Your task to perform on an android device: Go to CNN.com Image 0: 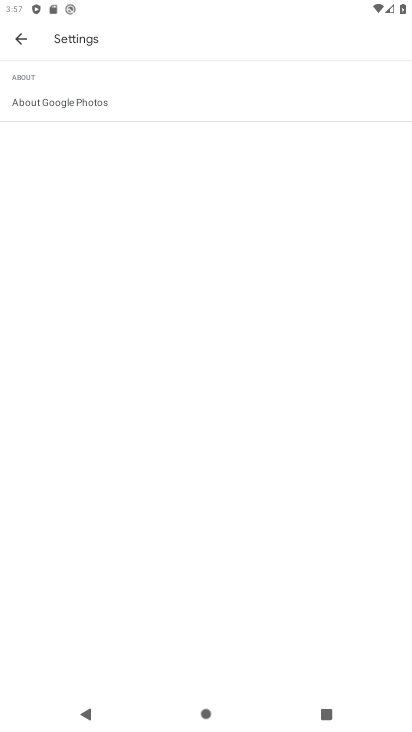
Step 0: press home button
Your task to perform on an android device: Go to CNN.com Image 1: 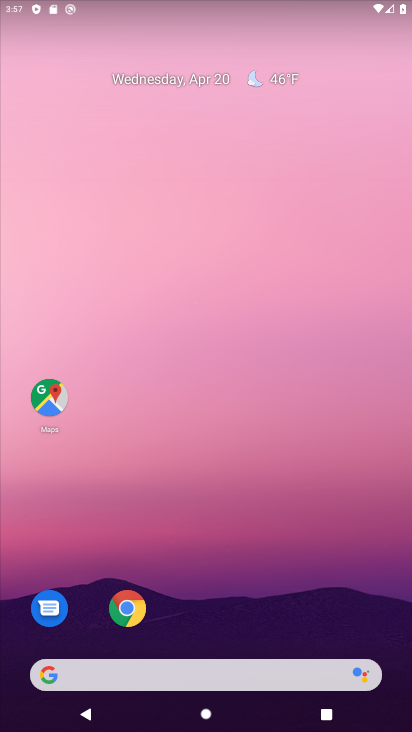
Step 1: click (129, 602)
Your task to perform on an android device: Go to CNN.com Image 2: 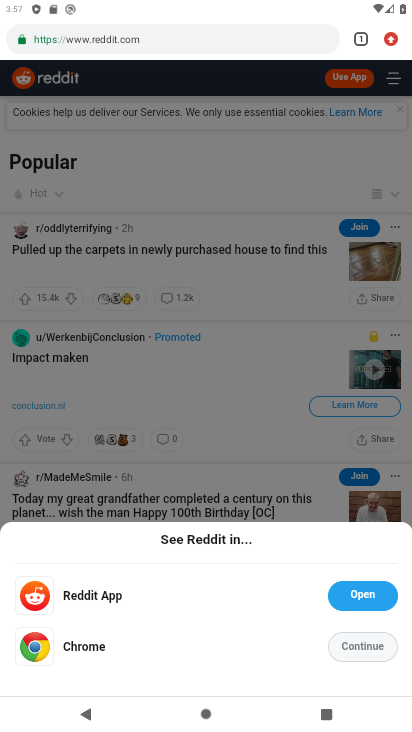
Step 2: click (361, 33)
Your task to perform on an android device: Go to CNN.com Image 3: 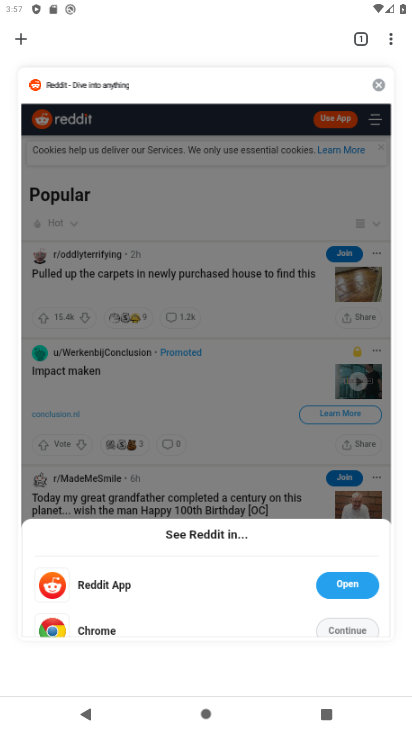
Step 3: click (17, 30)
Your task to perform on an android device: Go to CNN.com Image 4: 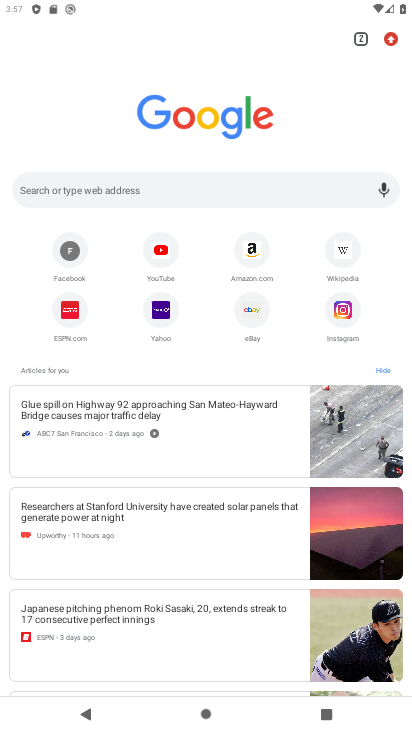
Step 4: click (150, 177)
Your task to perform on an android device: Go to CNN.com Image 5: 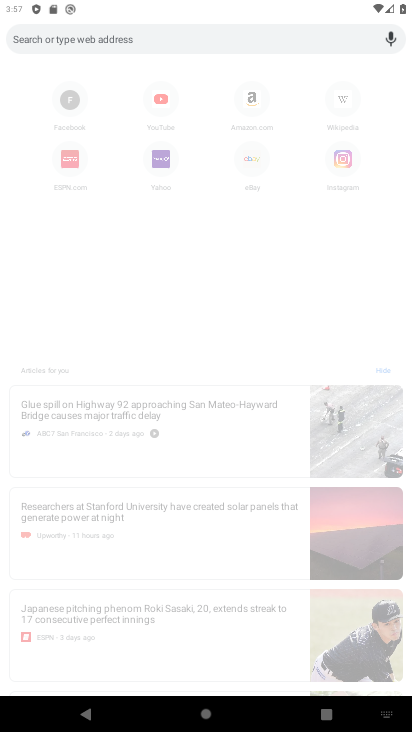
Step 5: type "cnn.com"
Your task to perform on an android device: Go to CNN.com Image 6: 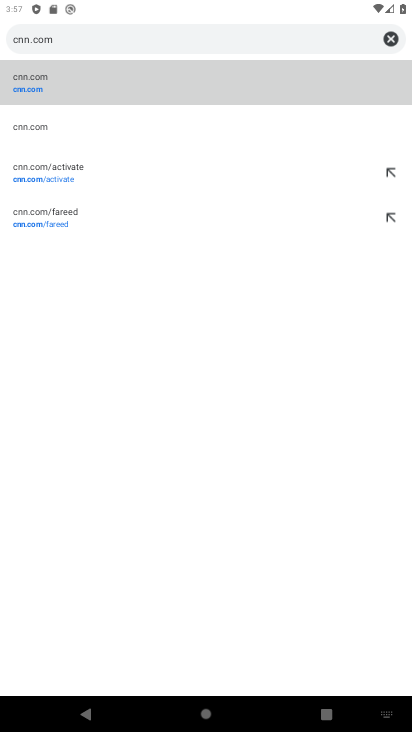
Step 6: click (112, 83)
Your task to perform on an android device: Go to CNN.com Image 7: 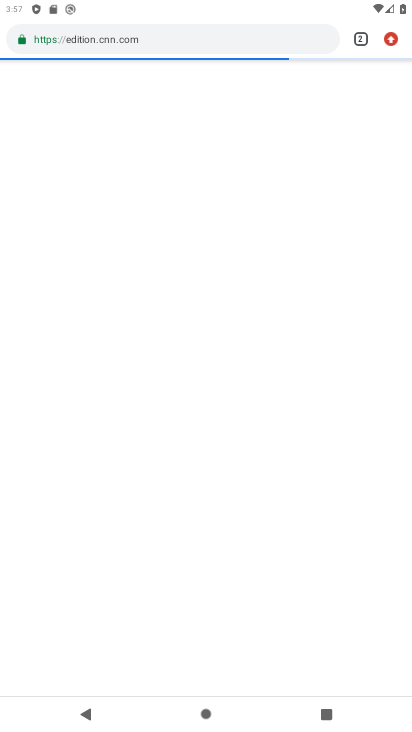
Step 7: task complete